Your task to perform on an android device: toggle wifi Image 0: 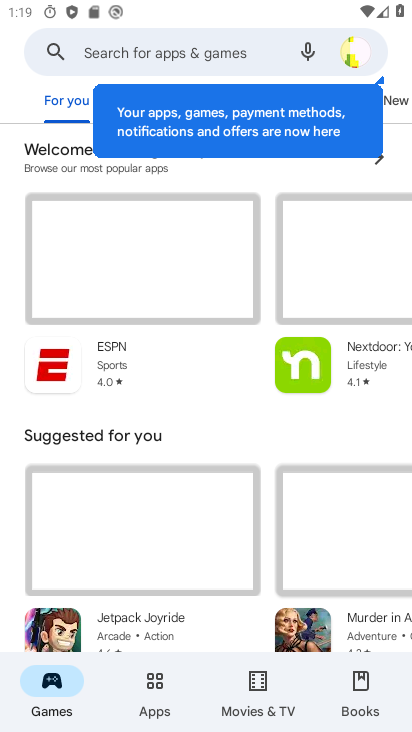
Step 0: drag from (193, 548) to (231, 240)
Your task to perform on an android device: toggle wifi Image 1: 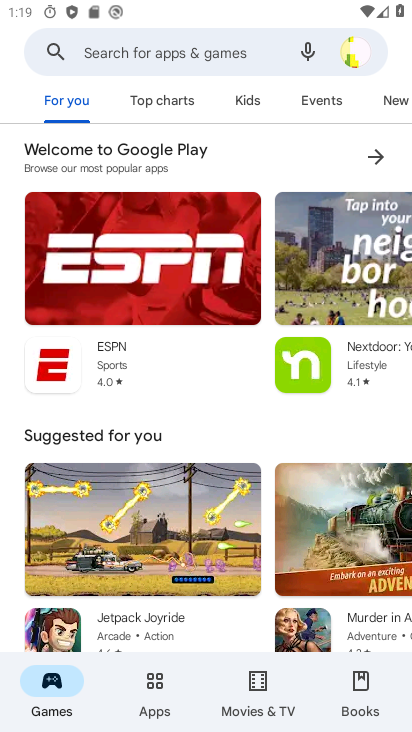
Step 1: press home button
Your task to perform on an android device: toggle wifi Image 2: 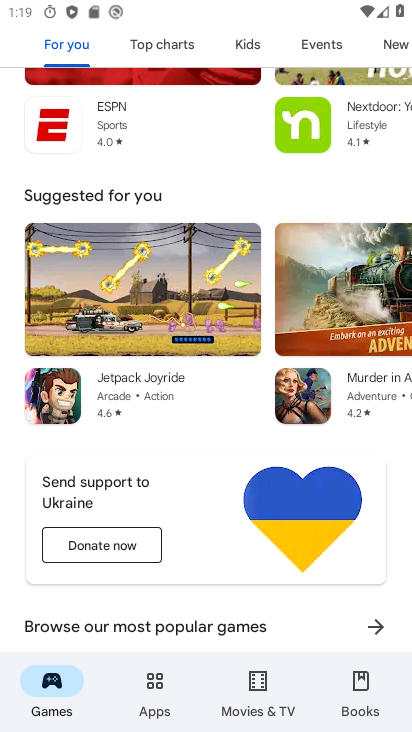
Step 2: drag from (198, 354) to (187, 193)
Your task to perform on an android device: toggle wifi Image 3: 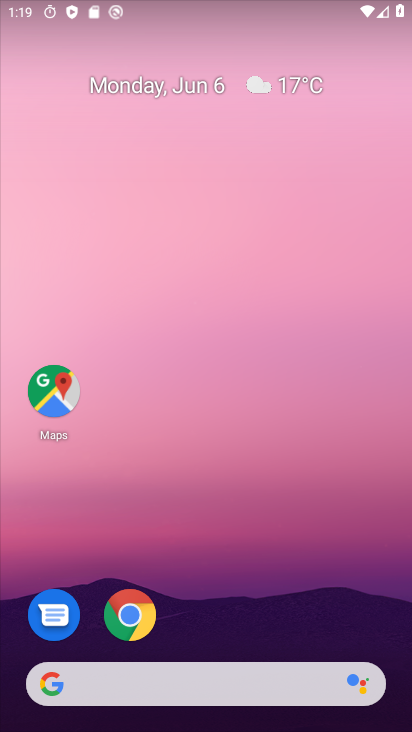
Step 3: drag from (215, 618) to (237, 137)
Your task to perform on an android device: toggle wifi Image 4: 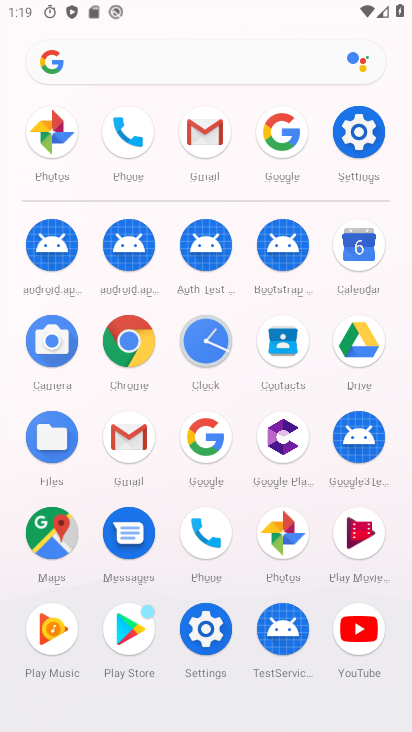
Step 4: click (360, 125)
Your task to perform on an android device: toggle wifi Image 5: 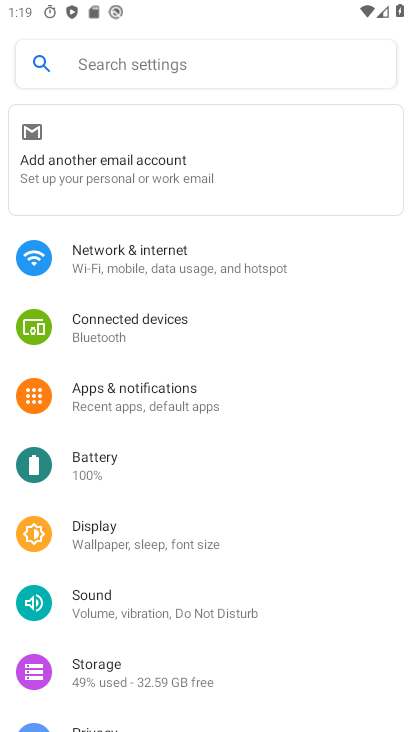
Step 5: click (159, 255)
Your task to perform on an android device: toggle wifi Image 6: 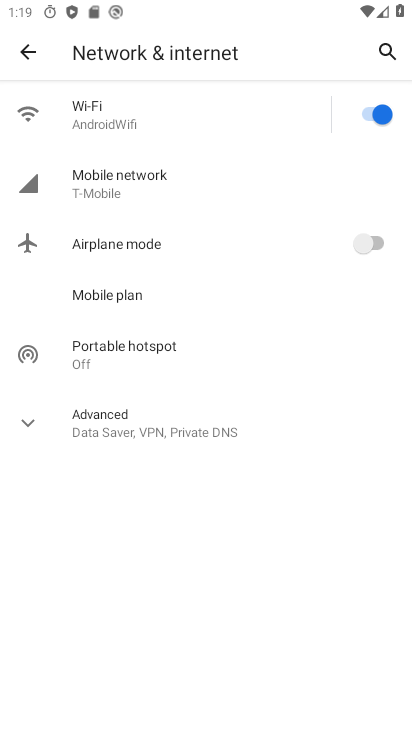
Step 6: click (226, 125)
Your task to perform on an android device: toggle wifi Image 7: 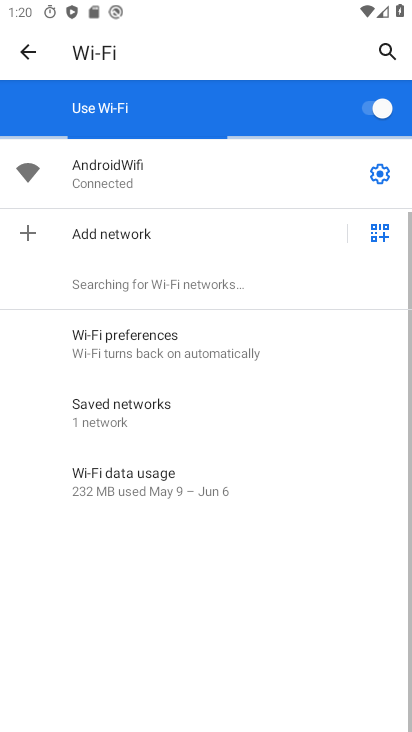
Step 7: click (379, 112)
Your task to perform on an android device: toggle wifi Image 8: 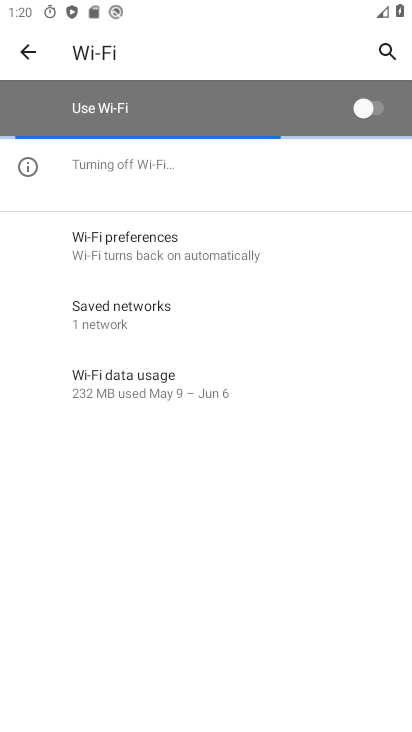
Step 8: task complete